Your task to perform on an android device: snooze an email in the gmail app Image 0: 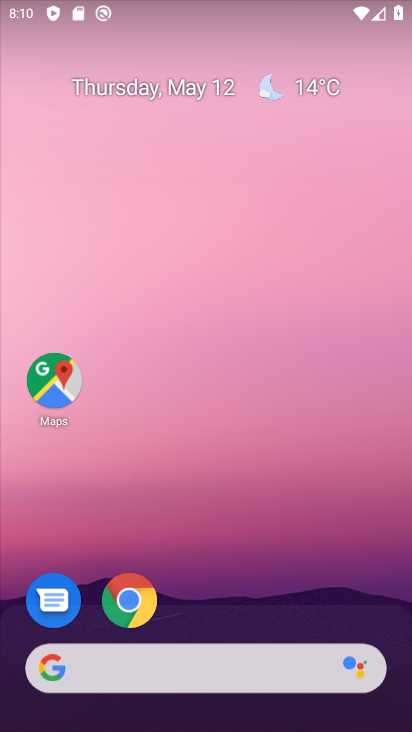
Step 0: click (184, 140)
Your task to perform on an android device: snooze an email in the gmail app Image 1: 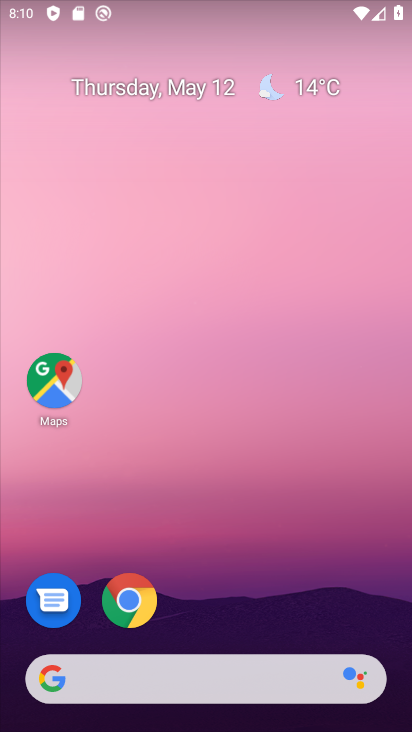
Step 1: drag from (253, 659) to (136, 137)
Your task to perform on an android device: snooze an email in the gmail app Image 2: 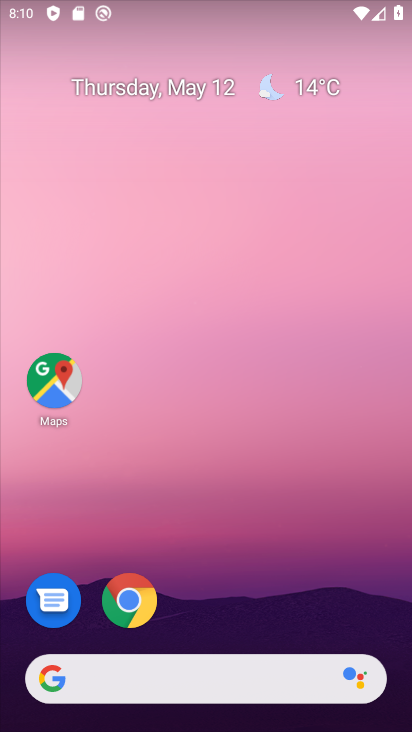
Step 2: drag from (234, 445) to (185, 14)
Your task to perform on an android device: snooze an email in the gmail app Image 3: 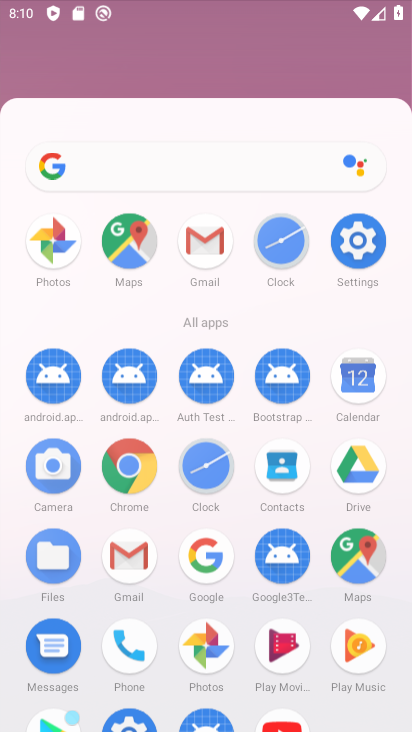
Step 3: drag from (183, 501) to (167, 0)
Your task to perform on an android device: snooze an email in the gmail app Image 4: 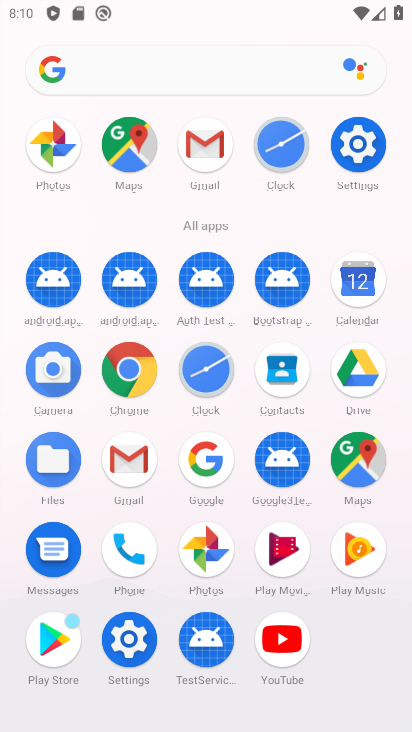
Step 4: drag from (210, 452) to (202, 15)
Your task to perform on an android device: snooze an email in the gmail app Image 5: 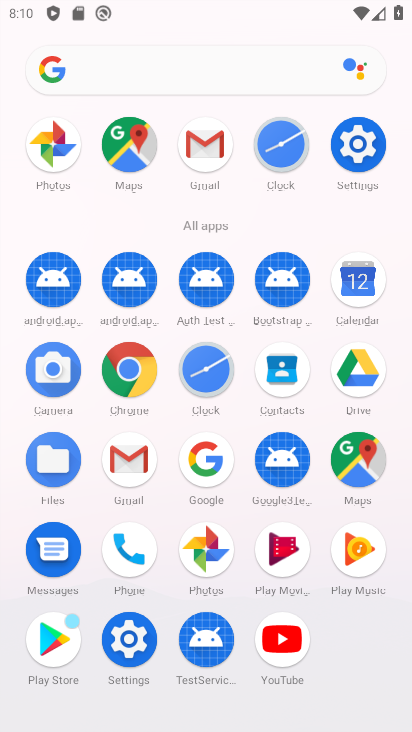
Step 5: click (128, 429)
Your task to perform on an android device: snooze an email in the gmail app Image 6: 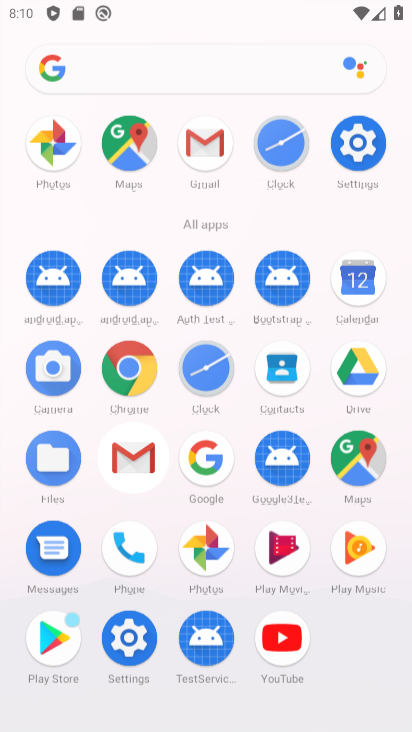
Step 6: click (121, 454)
Your task to perform on an android device: snooze an email in the gmail app Image 7: 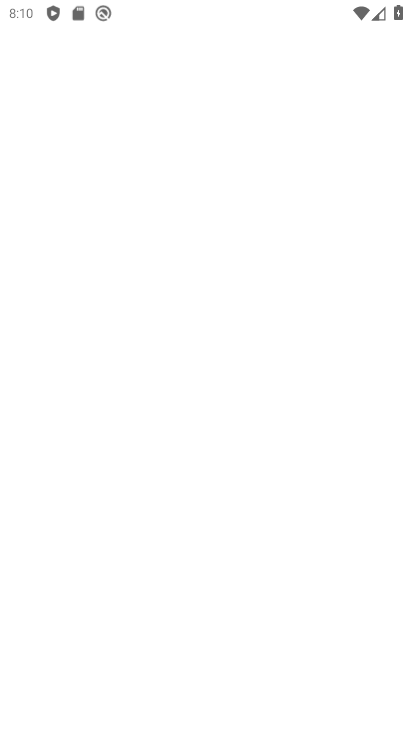
Step 7: click (121, 454)
Your task to perform on an android device: snooze an email in the gmail app Image 8: 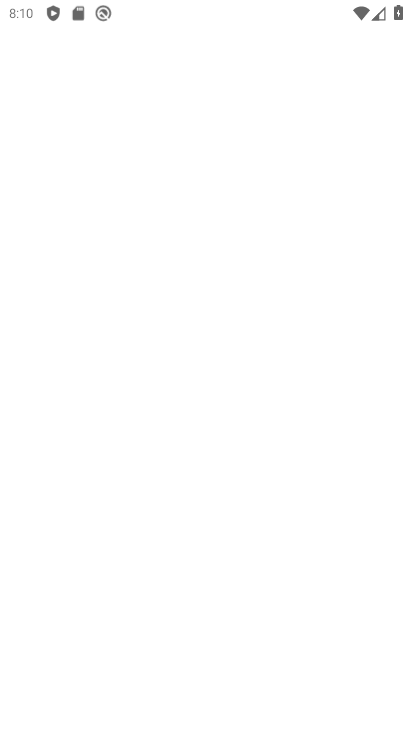
Step 8: click (141, 485)
Your task to perform on an android device: snooze an email in the gmail app Image 9: 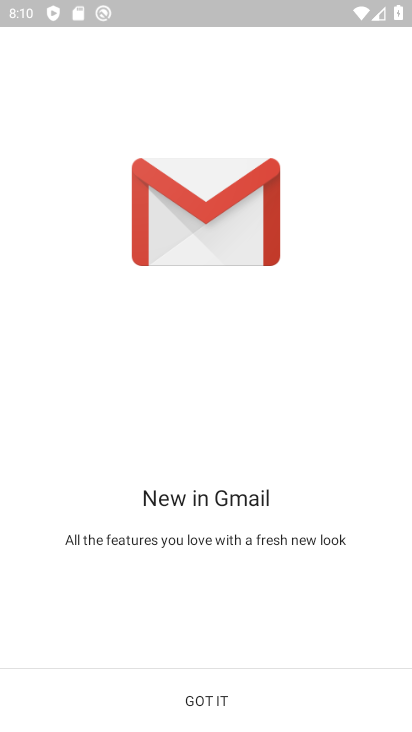
Step 9: click (210, 703)
Your task to perform on an android device: snooze an email in the gmail app Image 10: 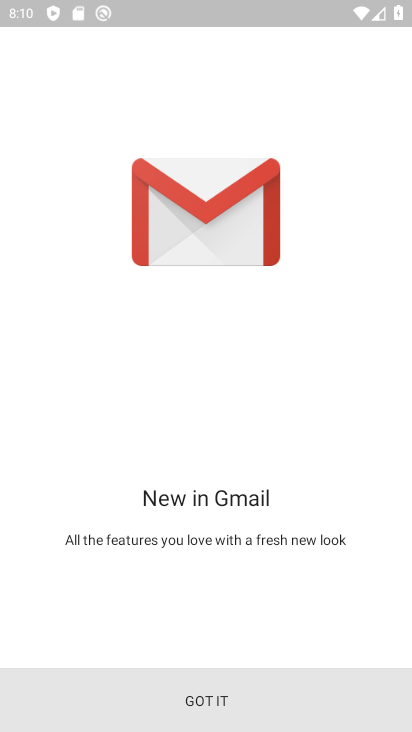
Step 10: click (212, 701)
Your task to perform on an android device: snooze an email in the gmail app Image 11: 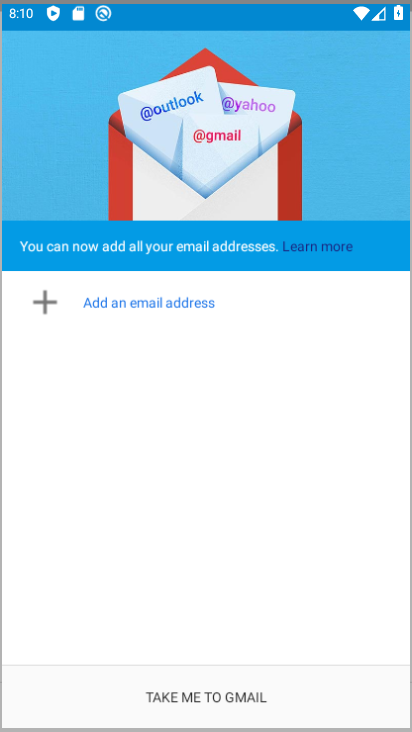
Step 11: click (214, 694)
Your task to perform on an android device: snooze an email in the gmail app Image 12: 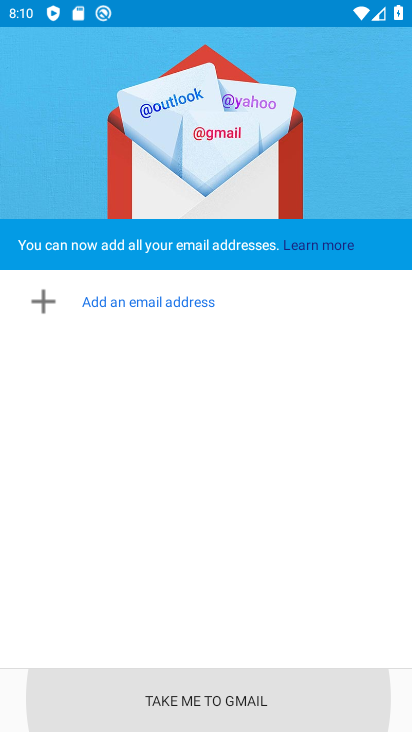
Step 12: click (213, 697)
Your task to perform on an android device: snooze an email in the gmail app Image 13: 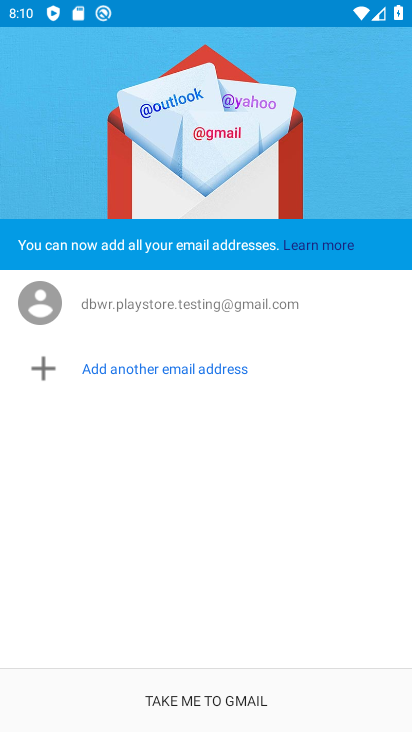
Step 13: click (211, 680)
Your task to perform on an android device: snooze an email in the gmail app Image 14: 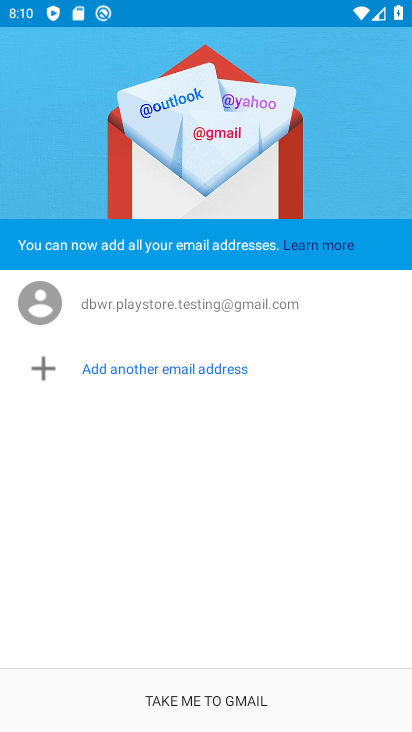
Step 14: click (210, 679)
Your task to perform on an android device: snooze an email in the gmail app Image 15: 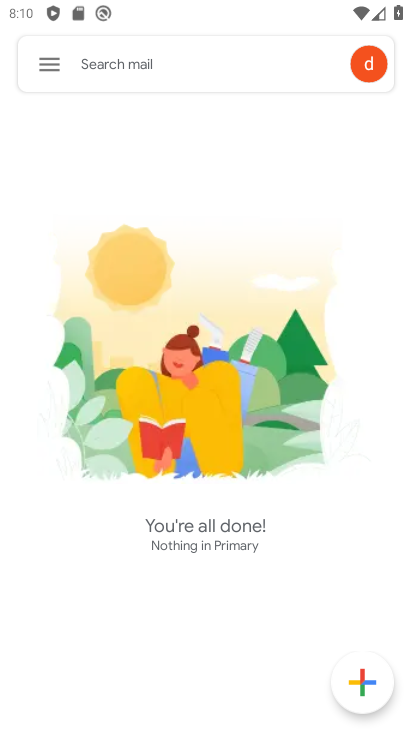
Step 15: click (46, 54)
Your task to perform on an android device: snooze an email in the gmail app Image 16: 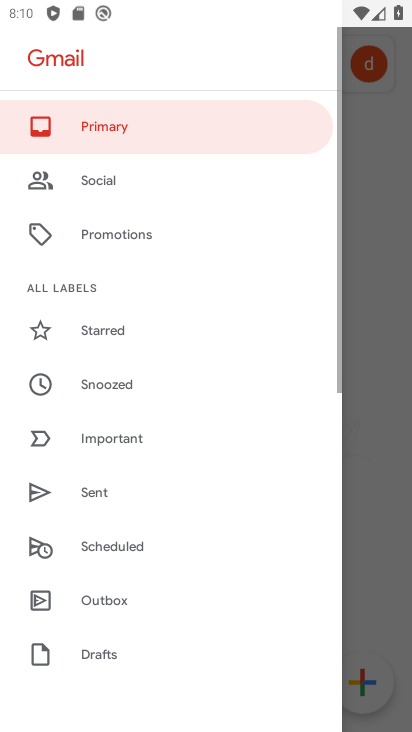
Step 16: click (50, 59)
Your task to perform on an android device: snooze an email in the gmail app Image 17: 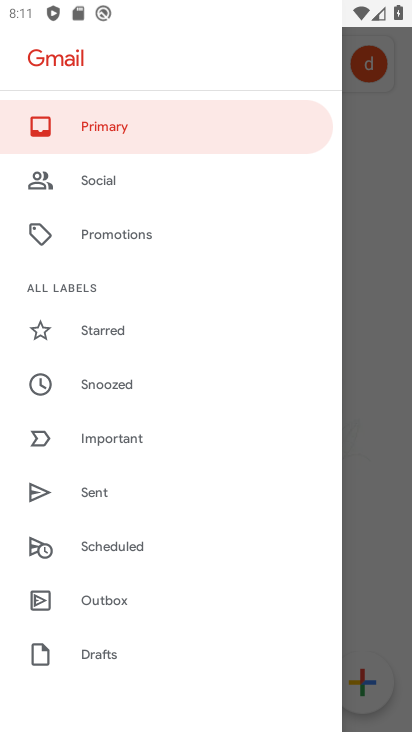
Step 17: click (56, 74)
Your task to perform on an android device: snooze an email in the gmail app Image 18: 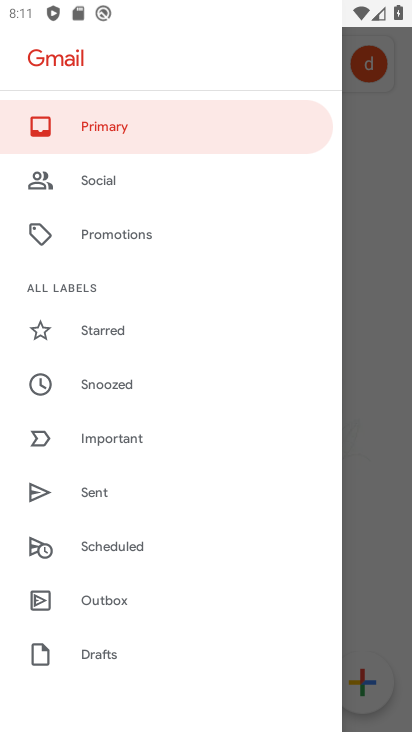
Step 18: click (54, 72)
Your task to perform on an android device: snooze an email in the gmail app Image 19: 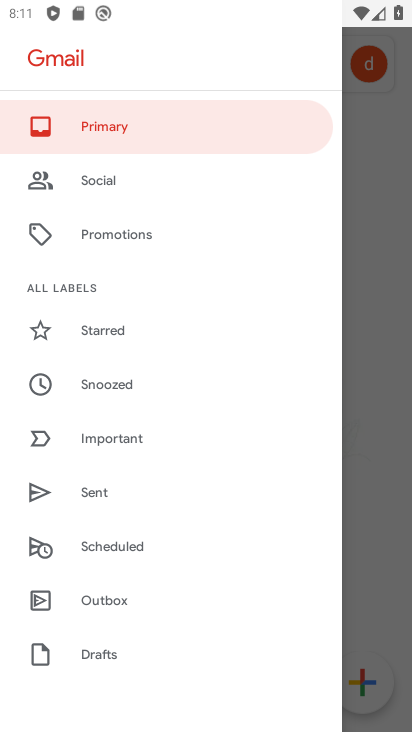
Step 19: click (109, 379)
Your task to perform on an android device: snooze an email in the gmail app Image 20: 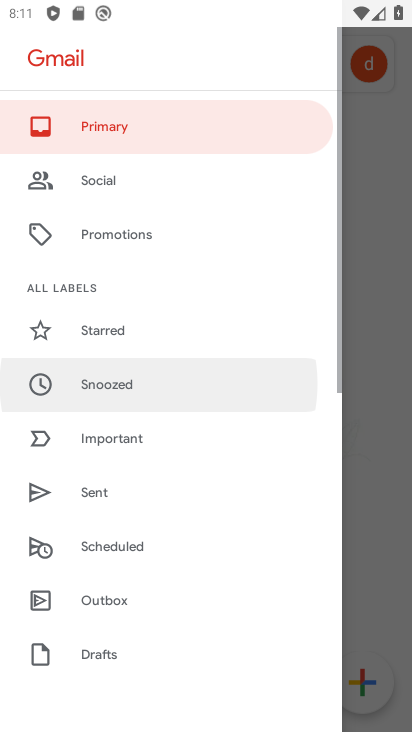
Step 20: click (109, 379)
Your task to perform on an android device: snooze an email in the gmail app Image 21: 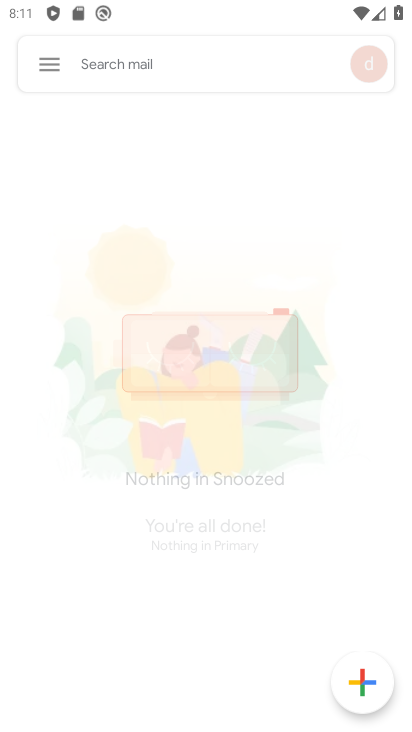
Step 21: click (109, 379)
Your task to perform on an android device: snooze an email in the gmail app Image 22: 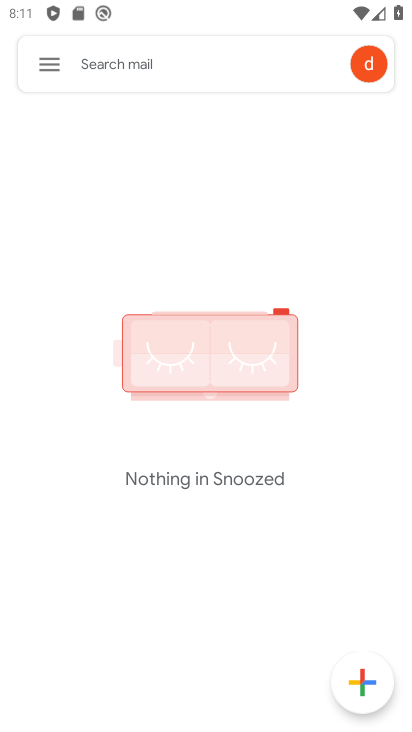
Step 22: task complete